Your task to perform on an android device: Open Youtube and go to the subscriptions tab Image 0: 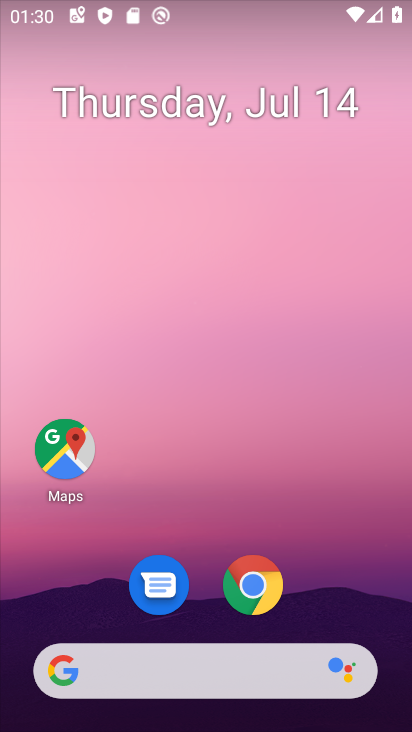
Step 0: drag from (316, 606) to (339, 19)
Your task to perform on an android device: Open Youtube and go to the subscriptions tab Image 1: 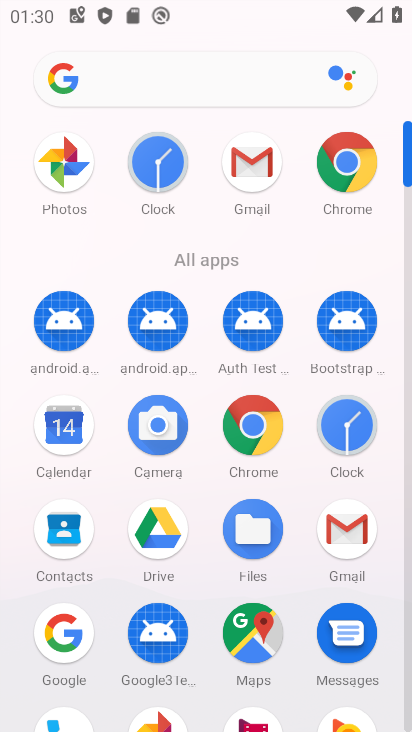
Step 1: drag from (285, 572) to (299, 104)
Your task to perform on an android device: Open Youtube and go to the subscriptions tab Image 2: 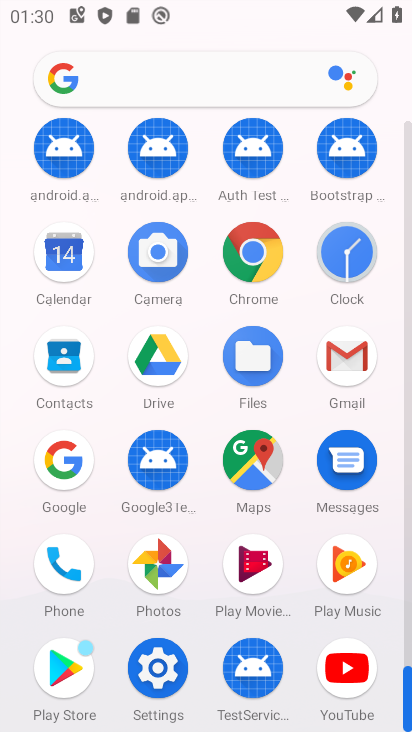
Step 2: click (356, 656)
Your task to perform on an android device: Open Youtube and go to the subscriptions tab Image 3: 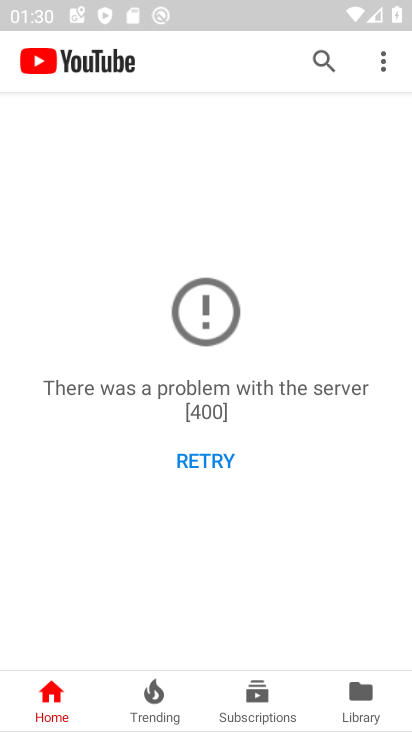
Step 3: drag from (318, 546) to (319, 231)
Your task to perform on an android device: Open Youtube and go to the subscriptions tab Image 4: 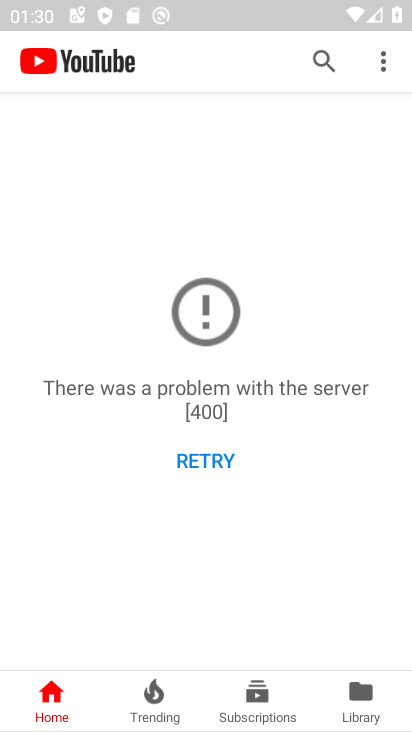
Step 4: click (250, 692)
Your task to perform on an android device: Open Youtube and go to the subscriptions tab Image 5: 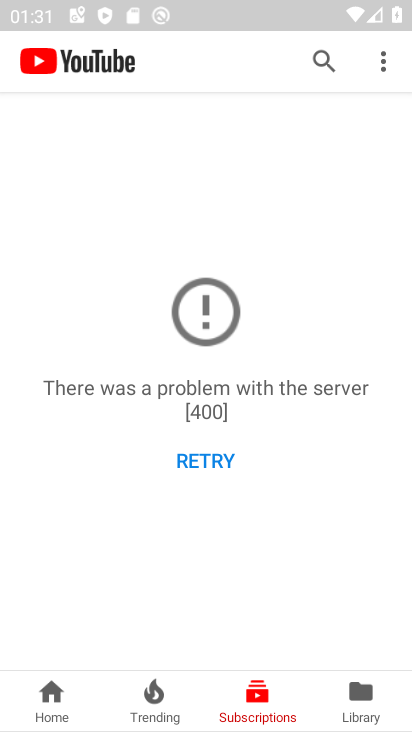
Step 5: click (218, 460)
Your task to perform on an android device: Open Youtube and go to the subscriptions tab Image 6: 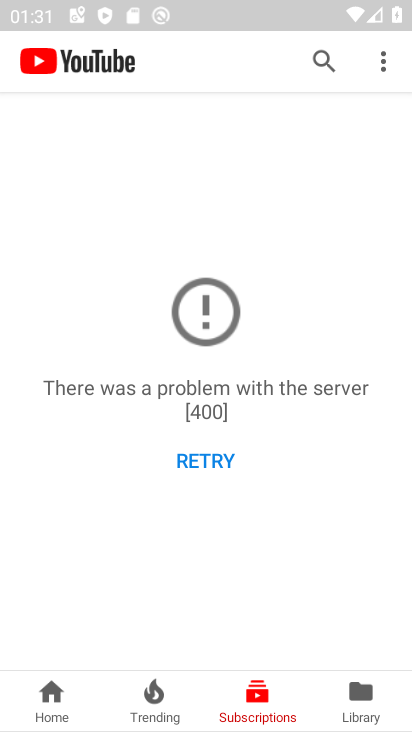
Step 6: click (218, 459)
Your task to perform on an android device: Open Youtube and go to the subscriptions tab Image 7: 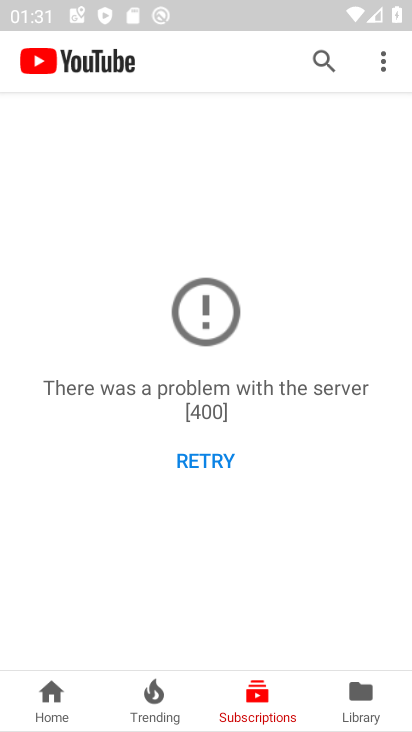
Step 7: task complete